Your task to perform on an android device: Search for "logitech g pro" on target.com, select the first entry, add it to the cart, then select checkout. Image 0: 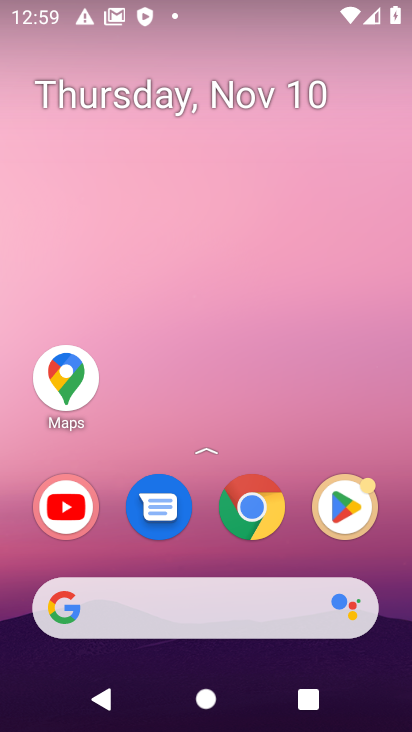
Step 0: click (246, 512)
Your task to perform on an android device: Search for "logitech g pro" on target.com, select the first entry, add it to the cart, then select checkout. Image 1: 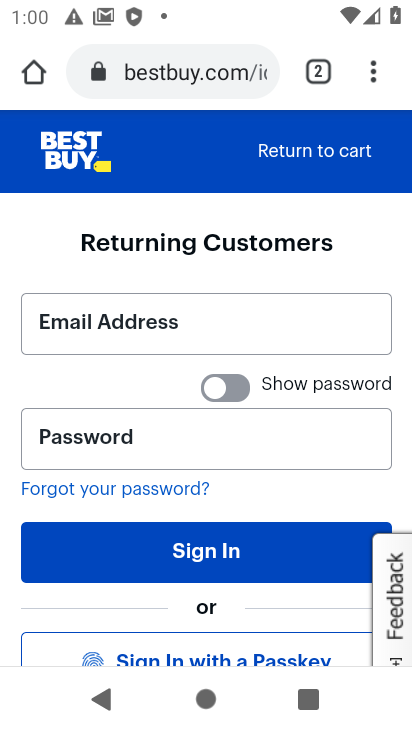
Step 1: click (333, 58)
Your task to perform on an android device: Search for "logitech g pro" on target.com, select the first entry, add it to the cart, then select checkout. Image 2: 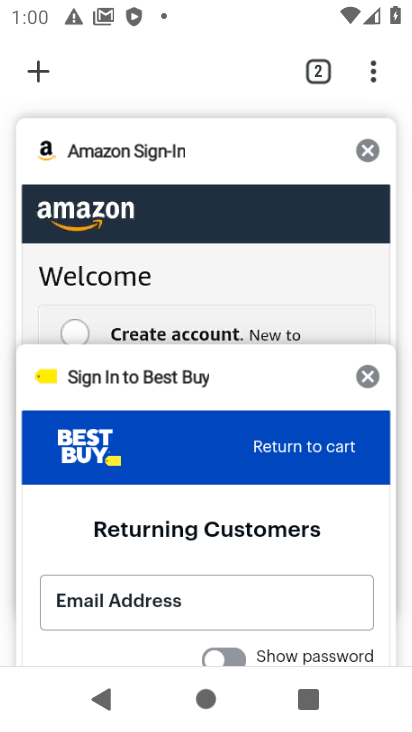
Step 2: click (33, 61)
Your task to perform on an android device: Search for "logitech g pro" on target.com, select the first entry, add it to the cart, then select checkout. Image 3: 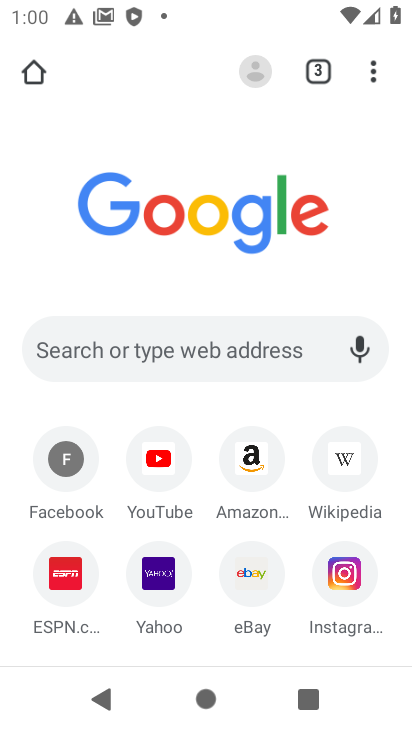
Step 3: click (130, 335)
Your task to perform on an android device: Search for "logitech g pro" on target.com, select the first entry, add it to the cart, then select checkout. Image 4: 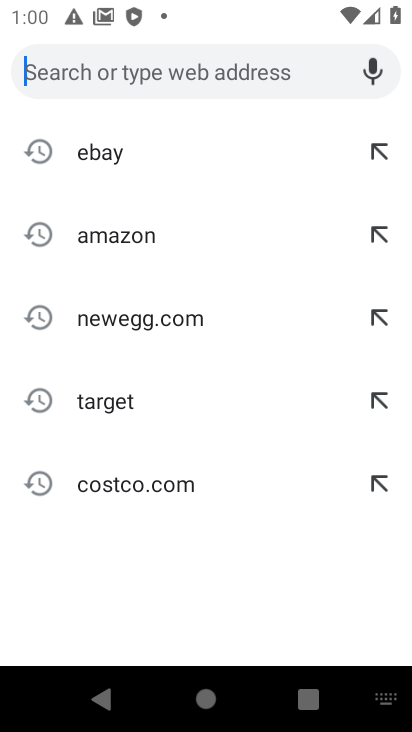
Step 4: click (93, 407)
Your task to perform on an android device: Search for "logitech g pro" on target.com, select the first entry, add it to the cart, then select checkout. Image 5: 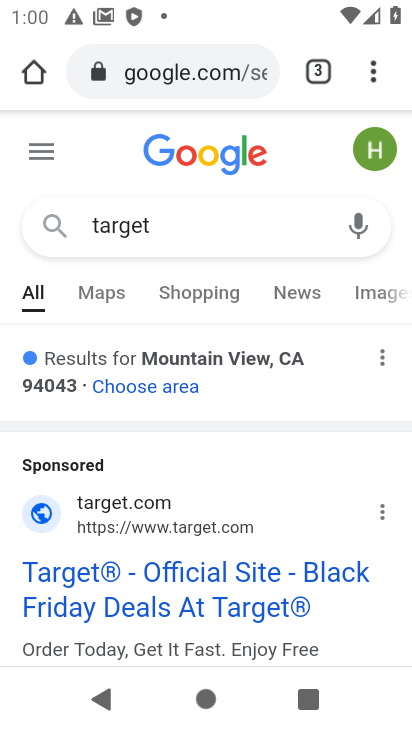
Step 5: click (74, 558)
Your task to perform on an android device: Search for "logitech g pro" on target.com, select the first entry, add it to the cart, then select checkout. Image 6: 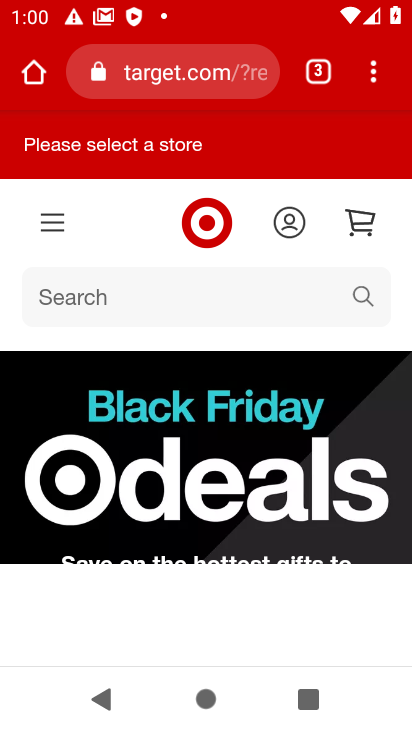
Step 6: click (64, 298)
Your task to perform on an android device: Search for "logitech g pro" on target.com, select the first entry, add it to the cart, then select checkout. Image 7: 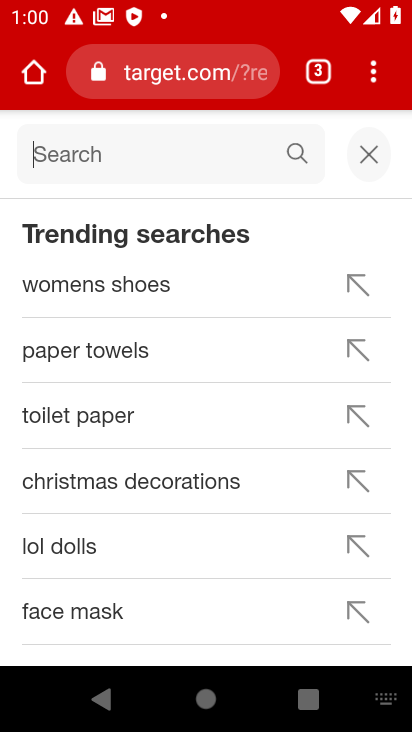
Step 7: type "logitech g pro"
Your task to perform on an android device: Search for "logitech g pro" on target.com, select the first entry, add it to the cart, then select checkout. Image 8: 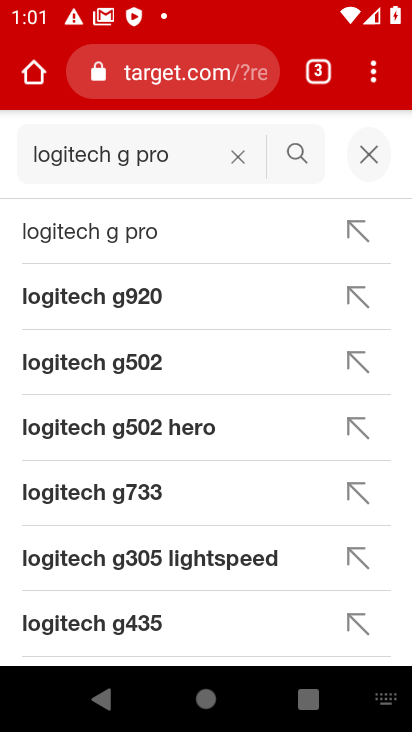
Step 8: click (119, 226)
Your task to perform on an android device: Search for "logitech g pro" on target.com, select the first entry, add it to the cart, then select checkout. Image 9: 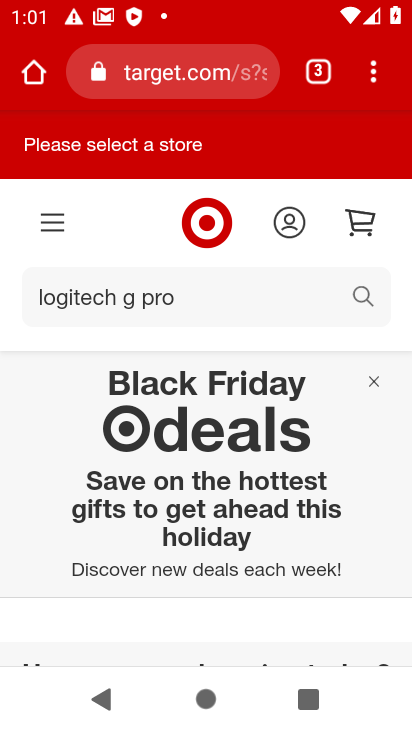
Step 9: drag from (235, 476) to (408, 97)
Your task to perform on an android device: Search for "logitech g pro" on target.com, select the first entry, add it to the cart, then select checkout. Image 10: 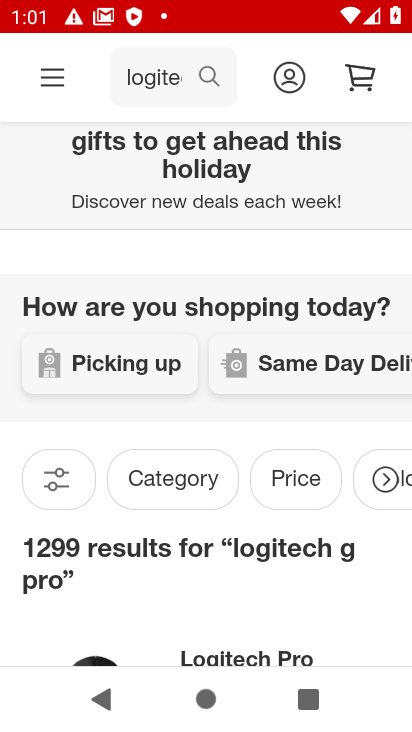
Step 10: drag from (224, 442) to (297, 153)
Your task to perform on an android device: Search for "logitech g pro" on target.com, select the first entry, add it to the cart, then select checkout. Image 11: 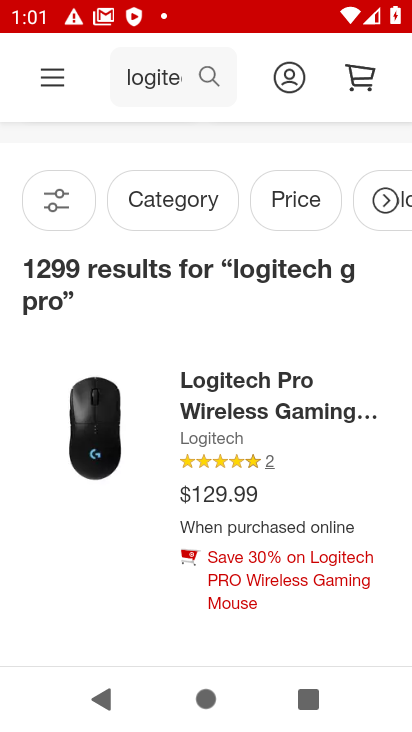
Step 11: click (276, 384)
Your task to perform on an android device: Search for "logitech g pro" on target.com, select the first entry, add it to the cart, then select checkout. Image 12: 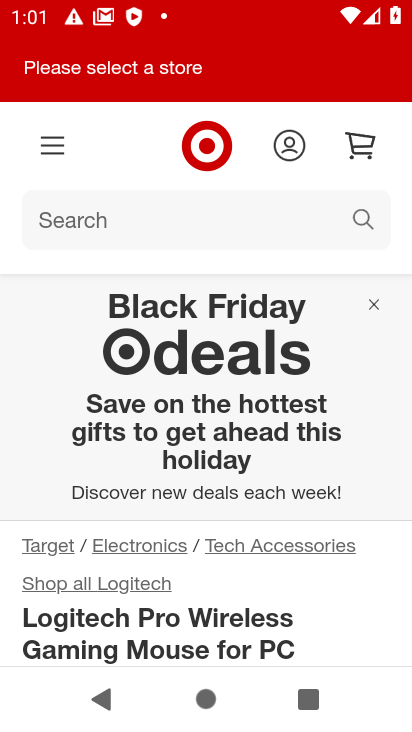
Step 12: drag from (261, 661) to (311, 232)
Your task to perform on an android device: Search for "logitech g pro" on target.com, select the first entry, add it to the cart, then select checkout. Image 13: 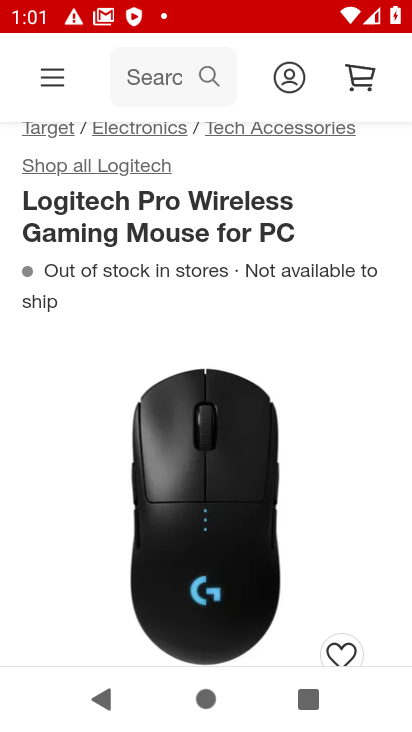
Step 13: drag from (348, 522) to (371, 14)
Your task to perform on an android device: Search for "logitech g pro" on target.com, select the first entry, add it to the cart, then select checkout. Image 14: 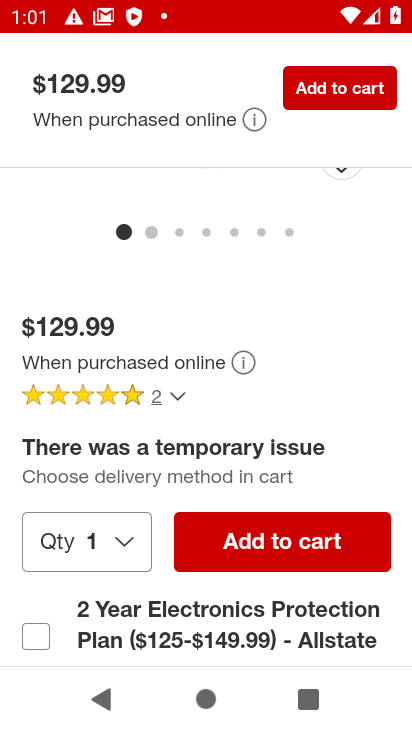
Step 14: click (265, 542)
Your task to perform on an android device: Search for "logitech g pro" on target.com, select the first entry, add it to the cart, then select checkout. Image 15: 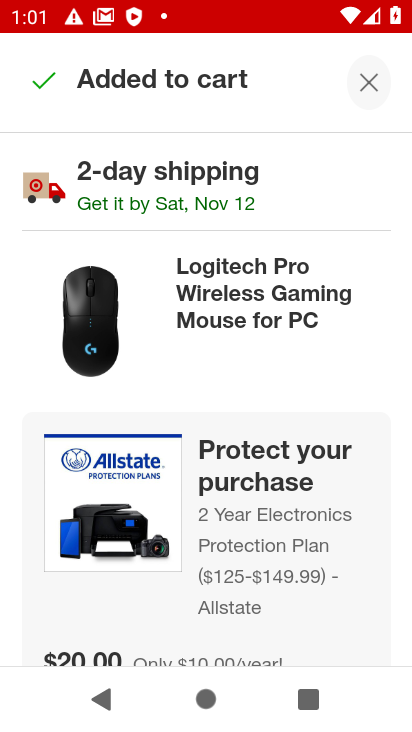
Step 15: click (265, 542)
Your task to perform on an android device: Search for "logitech g pro" on target.com, select the first entry, add it to the cart, then select checkout. Image 16: 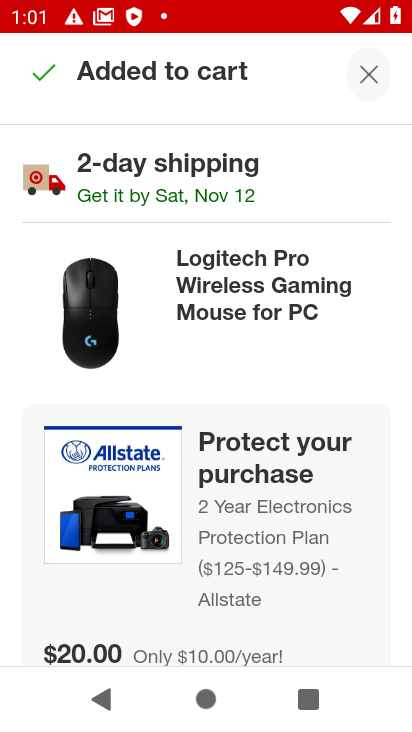
Step 16: drag from (274, 494) to (294, 430)
Your task to perform on an android device: Search for "logitech g pro" on target.com, select the first entry, add it to the cart, then select checkout. Image 17: 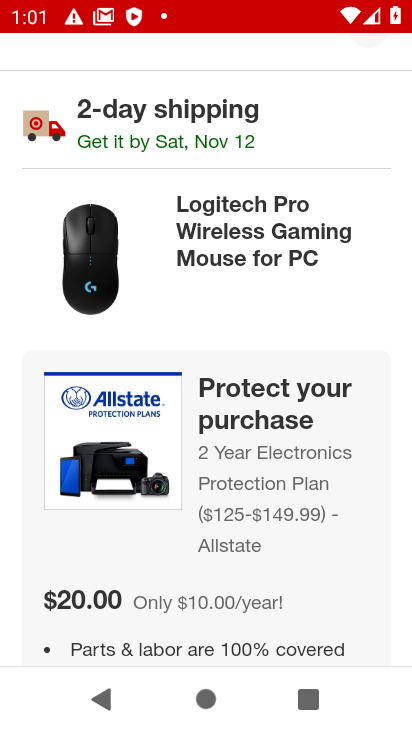
Step 17: drag from (297, 367) to (326, 82)
Your task to perform on an android device: Search for "logitech g pro" on target.com, select the first entry, add it to the cart, then select checkout. Image 18: 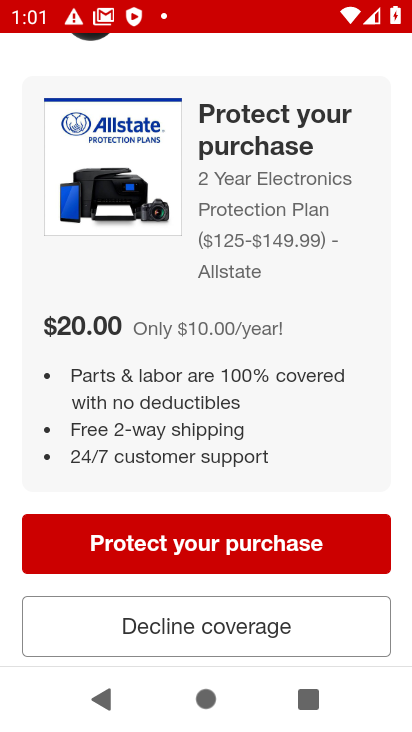
Step 18: click (216, 627)
Your task to perform on an android device: Search for "logitech g pro" on target.com, select the first entry, add it to the cart, then select checkout. Image 19: 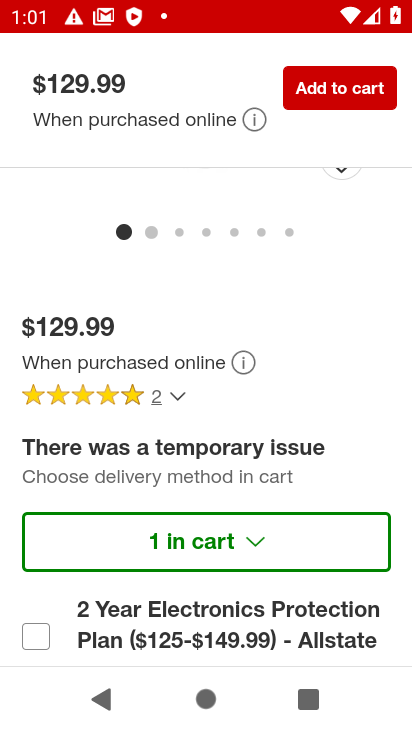
Step 19: click (218, 548)
Your task to perform on an android device: Search for "logitech g pro" on target.com, select the first entry, add it to the cart, then select checkout. Image 20: 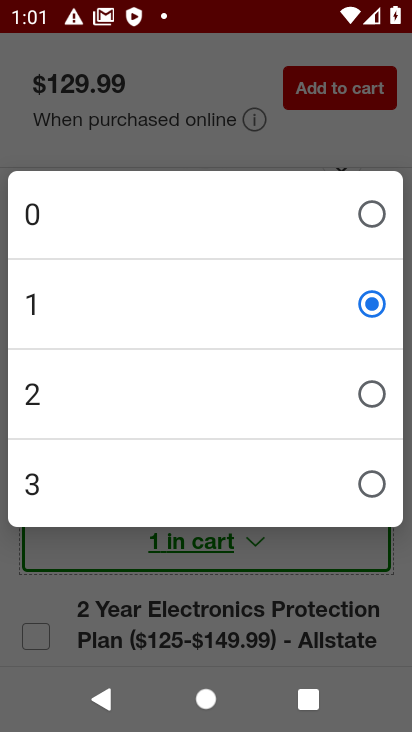
Step 20: click (271, 608)
Your task to perform on an android device: Search for "logitech g pro" on target.com, select the first entry, add it to the cart, then select checkout. Image 21: 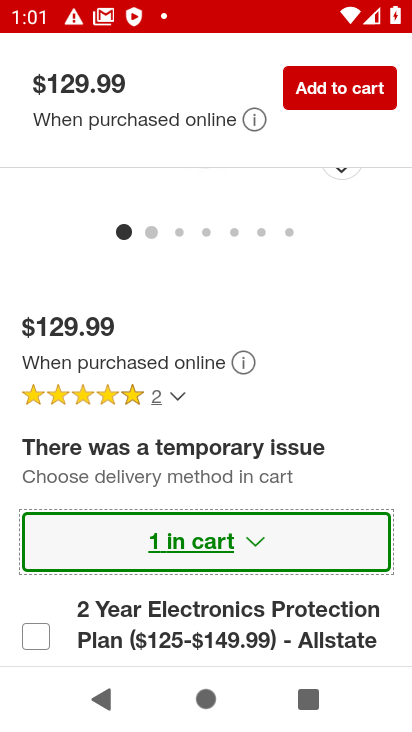
Step 21: drag from (281, 243) to (244, 691)
Your task to perform on an android device: Search for "logitech g pro" on target.com, select the first entry, add it to the cart, then select checkout. Image 22: 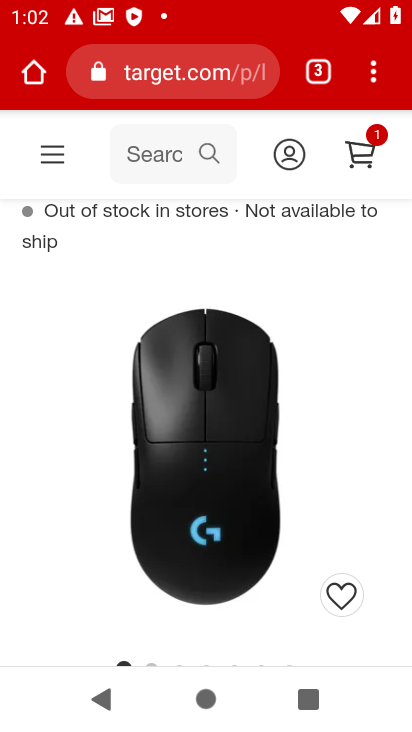
Step 22: click (359, 146)
Your task to perform on an android device: Search for "logitech g pro" on target.com, select the first entry, add it to the cart, then select checkout. Image 23: 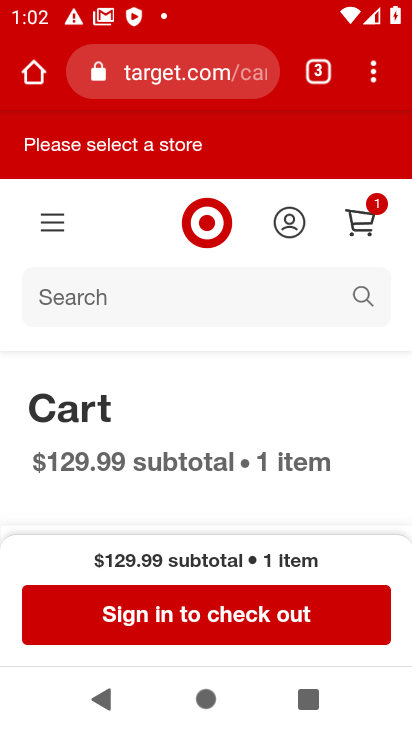
Step 23: click (285, 606)
Your task to perform on an android device: Search for "logitech g pro" on target.com, select the first entry, add it to the cart, then select checkout. Image 24: 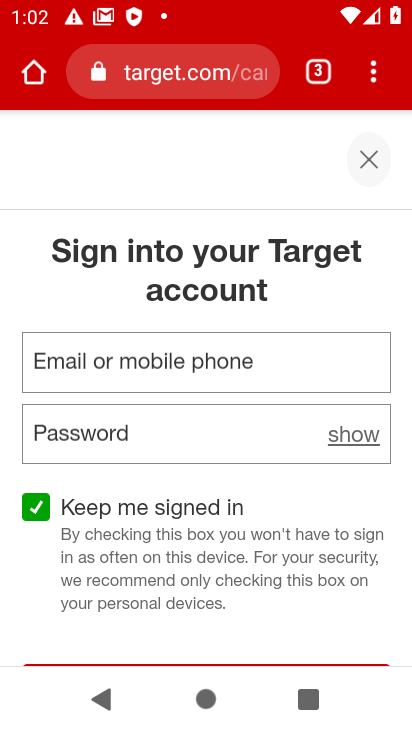
Step 24: task complete